Your task to perform on an android device: show emergency info Image 0: 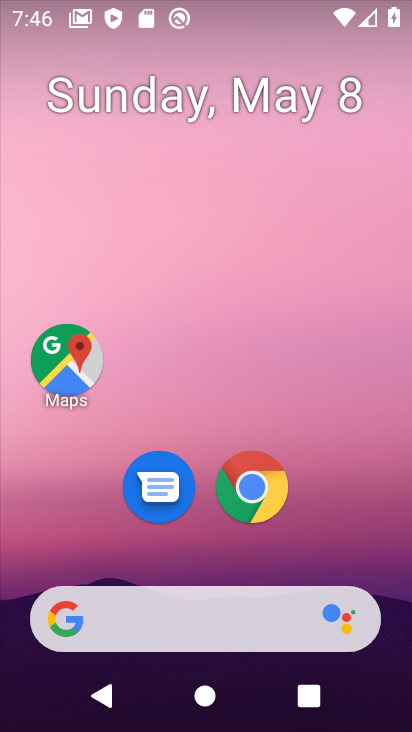
Step 0: drag from (364, 517) to (276, 97)
Your task to perform on an android device: show emergency info Image 1: 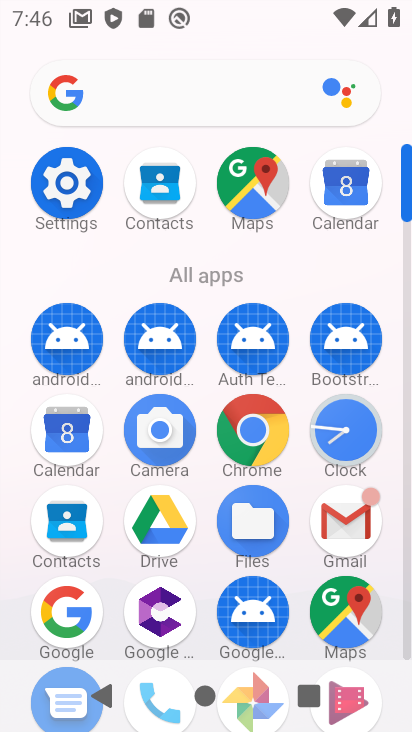
Step 1: click (67, 184)
Your task to perform on an android device: show emergency info Image 2: 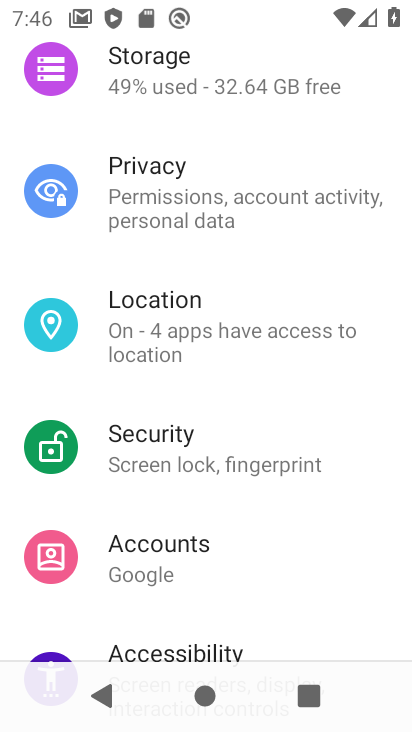
Step 2: drag from (271, 594) to (252, 52)
Your task to perform on an android device: show emergency info Image 3: 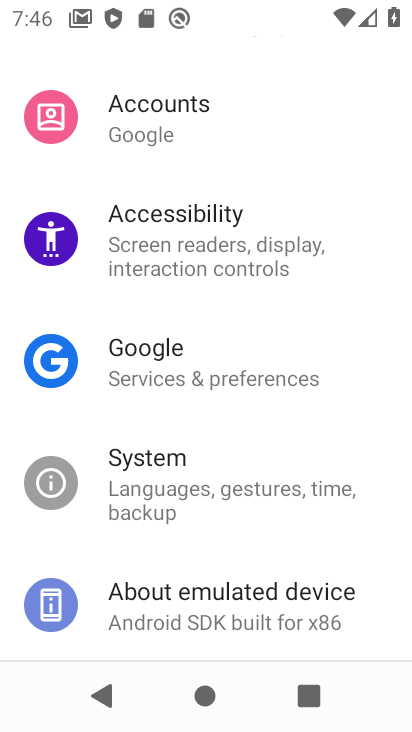
Step 3: click (276, 478)
Your task to perform on an android device: show emergency info Image 4: 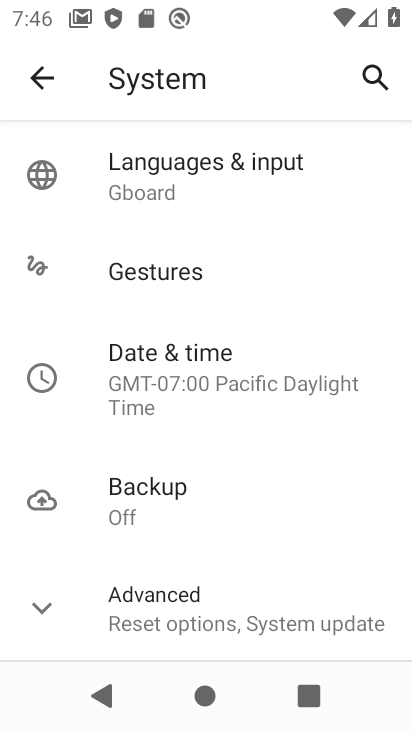
Step 4: drag from (263, 576) to (264, 321)
Your task to perform on an android device: show emergency info Image 5: 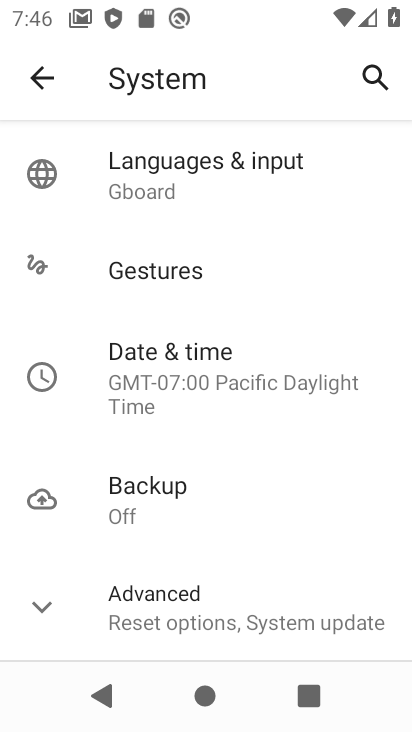
Step 5: click (48, 82)
Your task to perform on an android device: show emergency info Image 6: 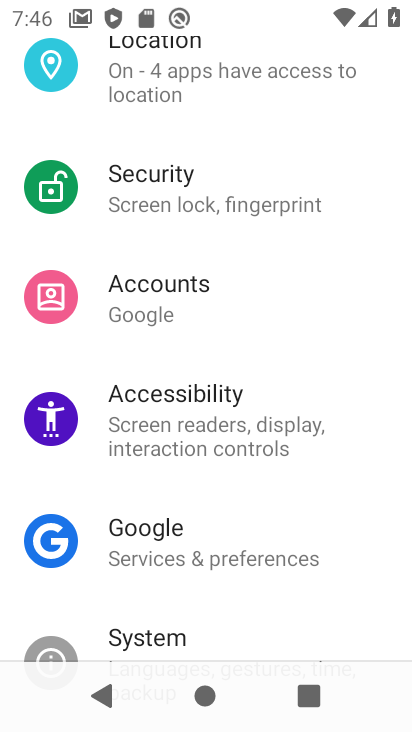
Step 6: drag from (242, 536) to (259, 135)
Your task to perform on an android device: show emergency info Image 7: 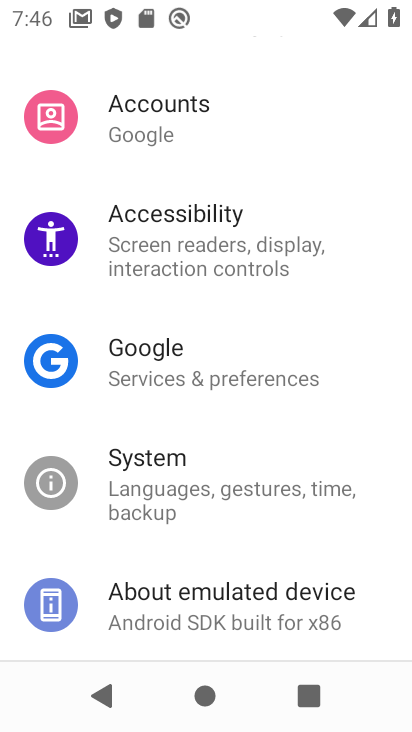
Step 7: click (268, 595)
Your task to perform on an android device: show emergency info Image 8: 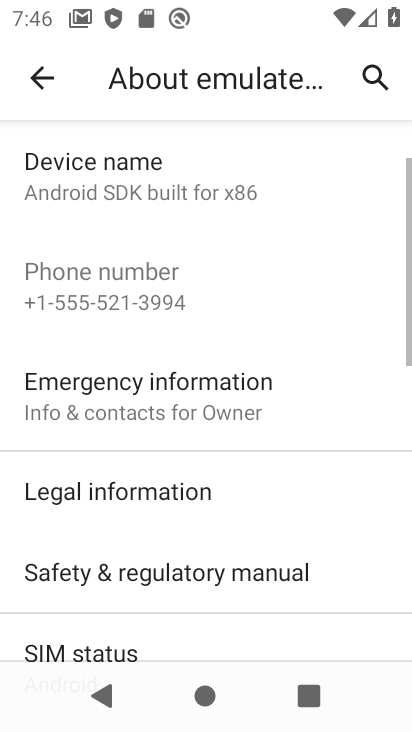
Step 8: click (200, 423)
Your task to perform on an android device: show emergency info Image 9: 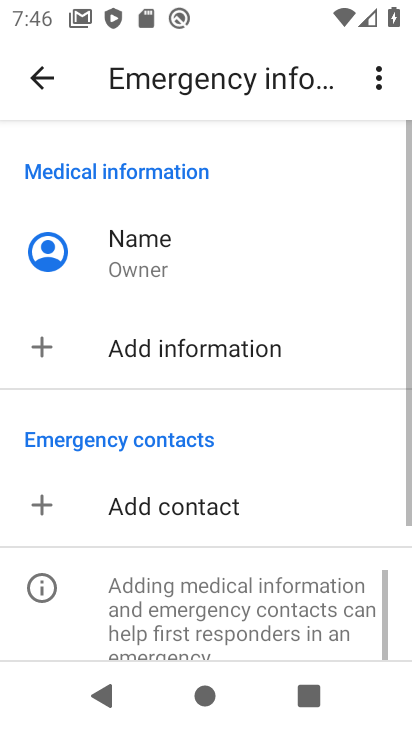
Step 9: task complete